Your task to perform on an android device: Go to Maps Image 0: 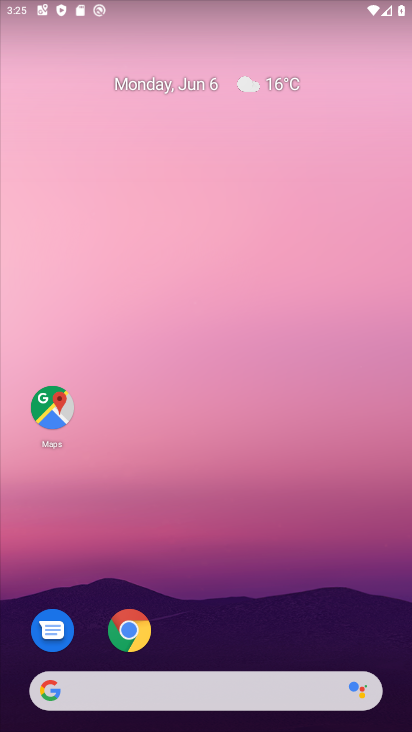
Step 0: click (59, 390)
Your task to perform on an android device: Go to Maps Image 1: 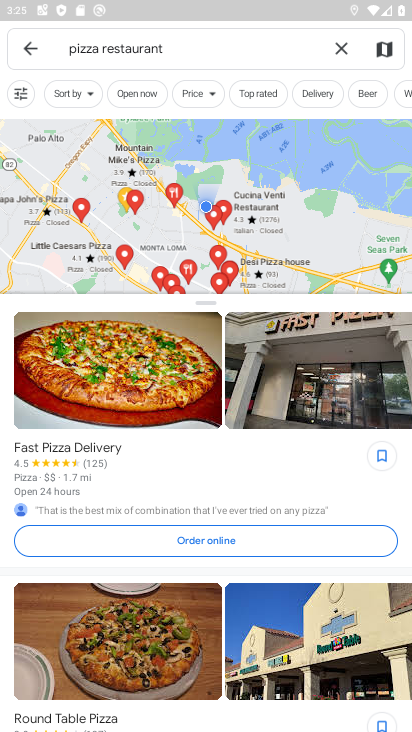
Step 1: task complete